Your task to perform on an android device: toggle sleep mode Image 0: 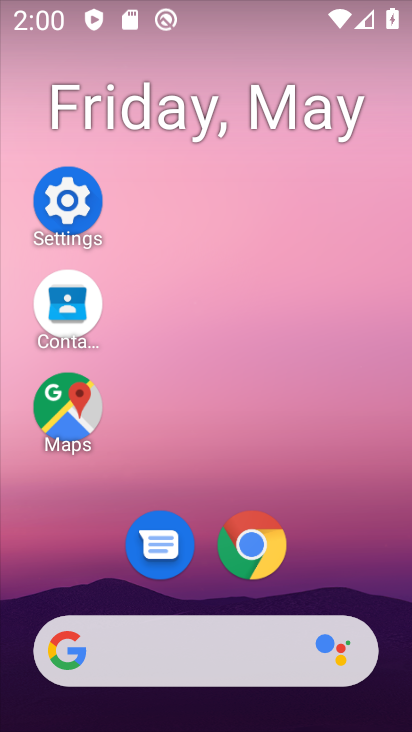
Step 0: click (97, 189)
Your task to perform on an android device: toggle sleep mode Image 1: 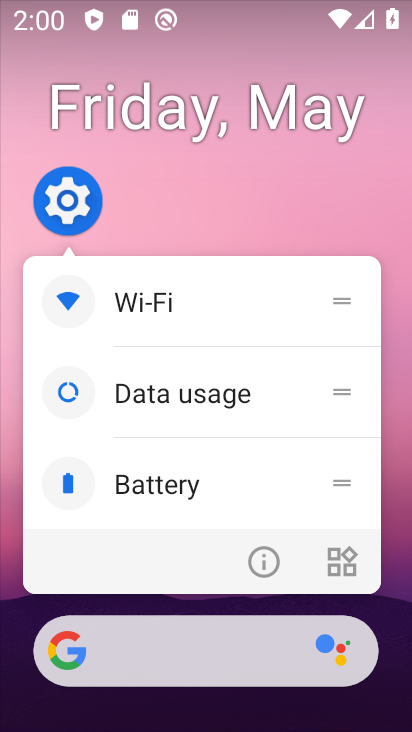
Step 1: click (78, 194)
Your task to perform on an android device: toggle sleep mode Image 2: 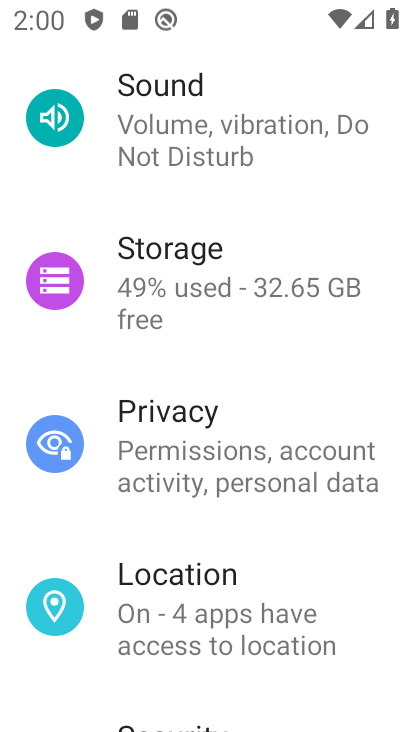
Step 2: drag from (270, 169) to (318, 532)
Your task to perform on an android device: toggle sleep mode Image 3: 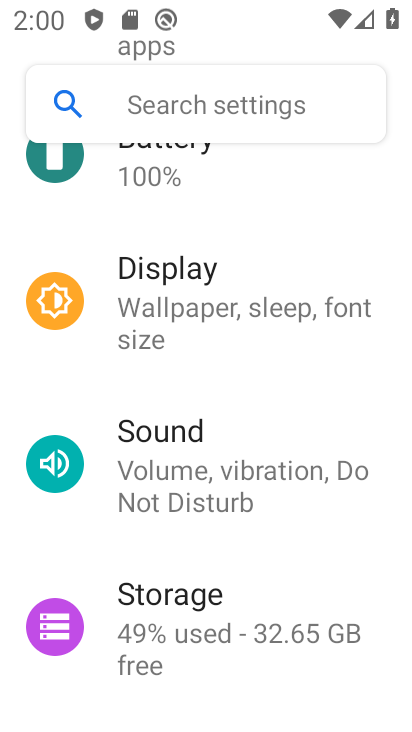
Step 3: click (335, 307)
Your task to perform on an android device: toggle sleep mode Image 4: 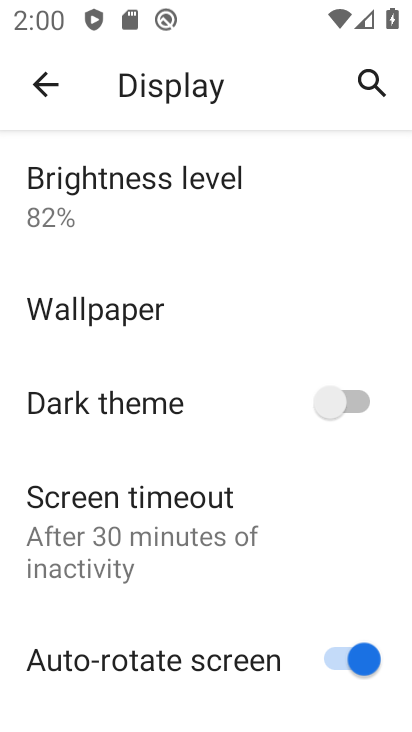
Step 4: drag from (301, 566) to (326, 175)
Your task to perform on an android device: toggle sleep mode Image 5: 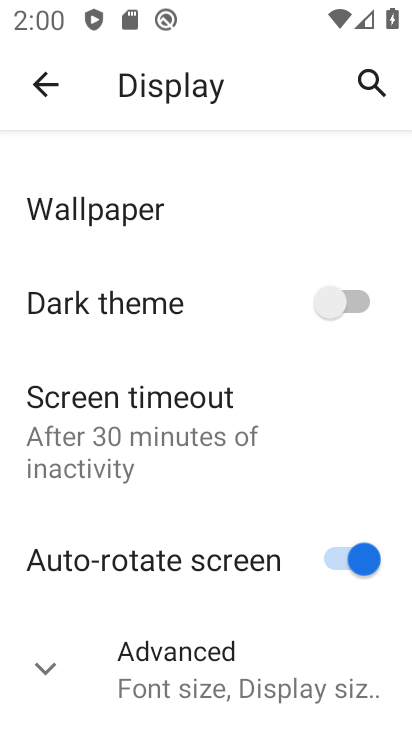
Step 5: drag from (269, 194) to (280, 630)
Your task to perform on an android device: toggle sleep mode Image 6: 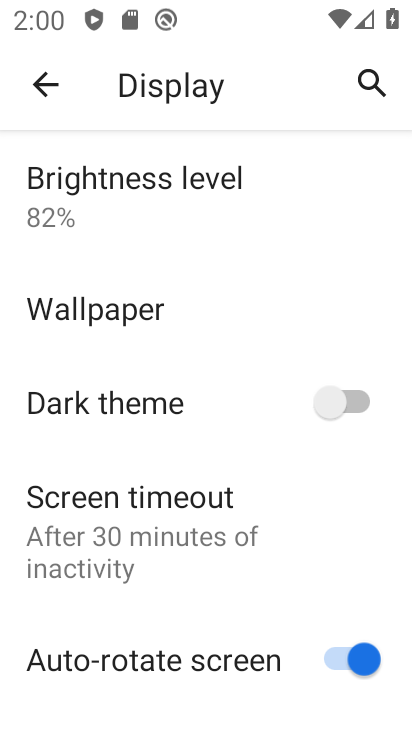
Step 6: drag from (247, 577) to (211, 207)
Your task to perform on an android device: toggle sleep mode Image 7: 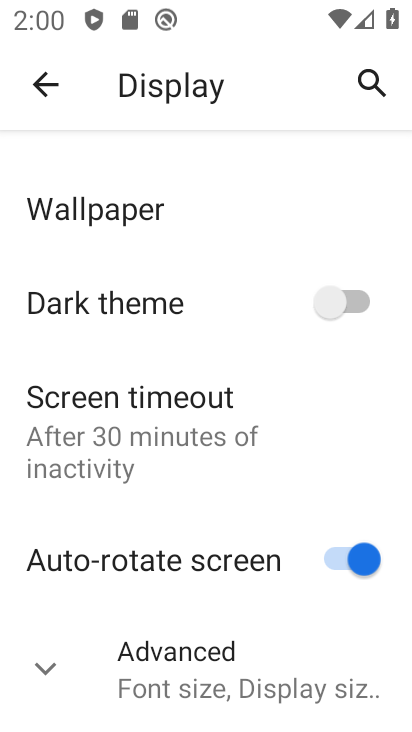
Step 7: click (253, 424)
Your task to perform on an android device: toggle sleep mode Image 8: 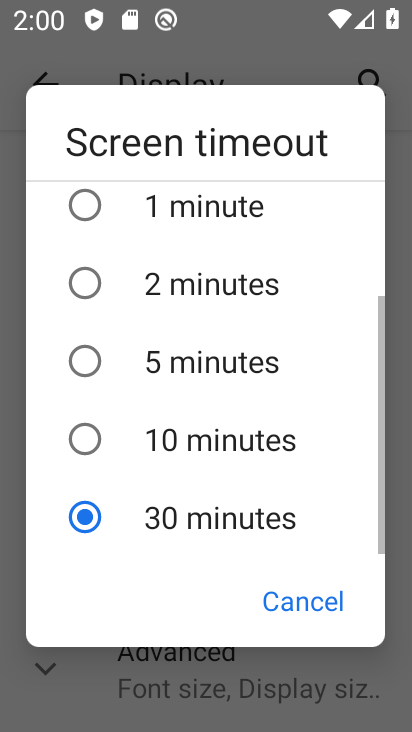
Step 8: click (124, 278)
Your task to perform on an android device: toggle sleep mode Image 9: 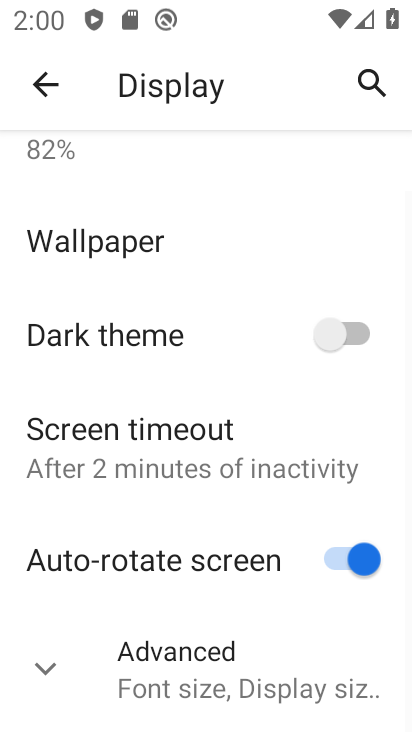
Step 9: task complete